Your task to perform on an android device: turn off translation in the chrome app Image 0: 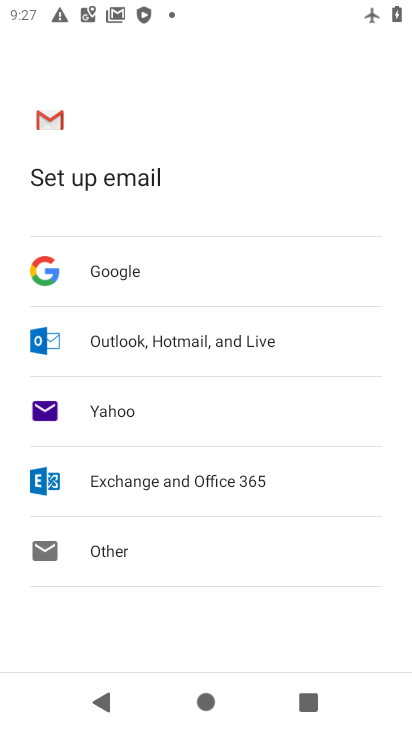
Step 0: press home button
Your task to perform on an android device: turn off translation in the chrome app Image 1: 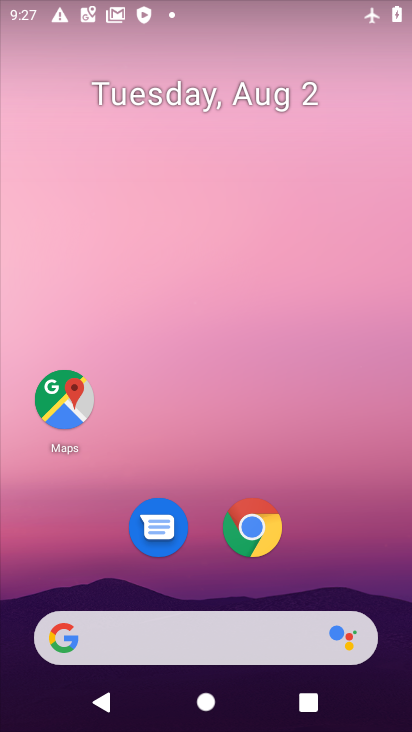
Step 1: drag from (194, 566) to (177, 255)
Your task to perform on an android device: turn off translation in the chrome app Image 2: 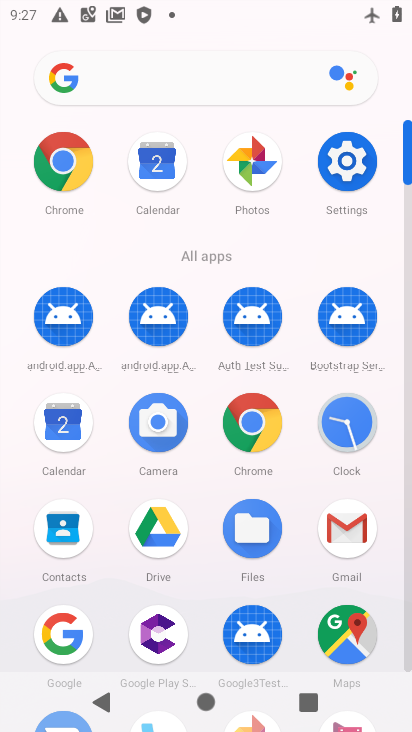
Step 2: click (256, 420)
Your task to perform on an android device: turn off translation in the chrome app Image 3: 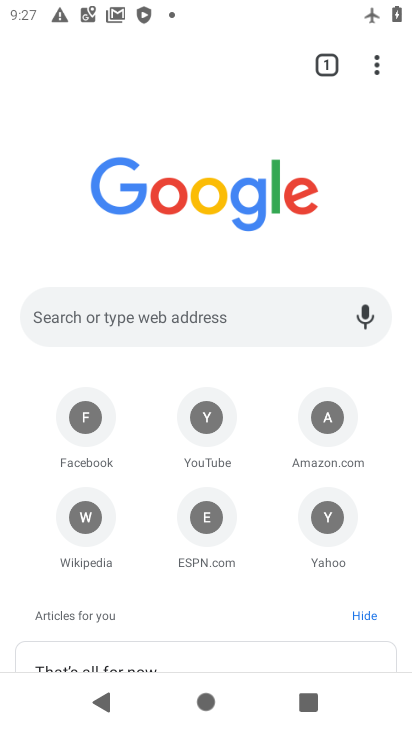
Step 3: click (382, 75)
Your task to perform on an android device: turn off translation in the chrome app Image 4: 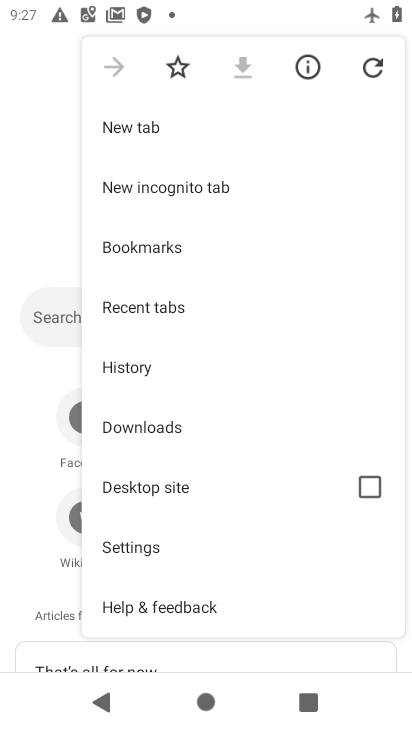
Step 4: click (140, 547)
Your task to perform on an android device: turn off translation in the chrome app Image 5: 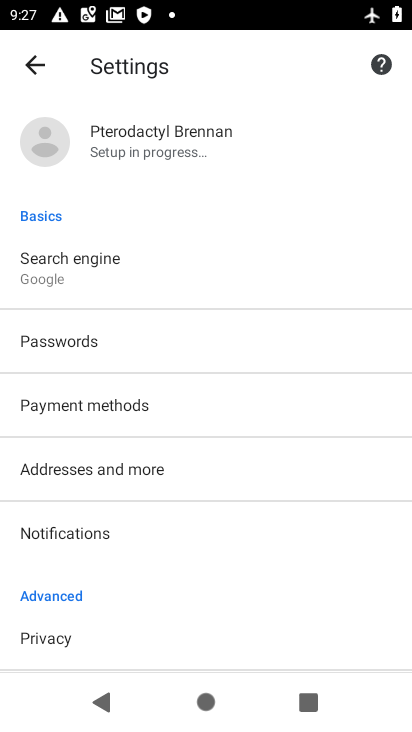
Step 5: drag from (120, 633) to (141, 277)
Your task to perform on an android device: turn off translation in the chrome app Image 6: 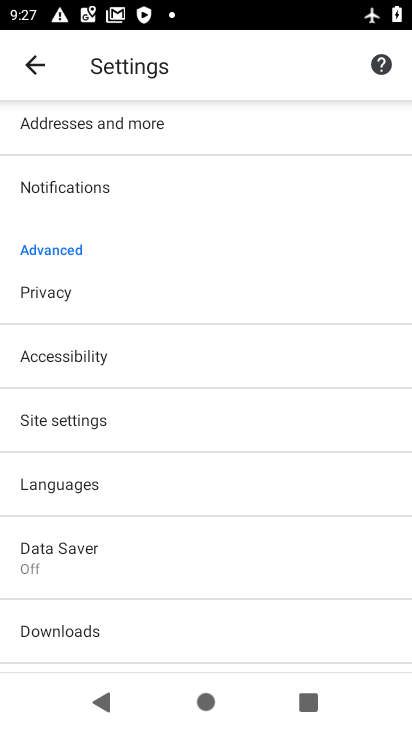
Step 6: click (69, 487)
Your task to perform on an android device: turn off translation in the chrome app Image 7: 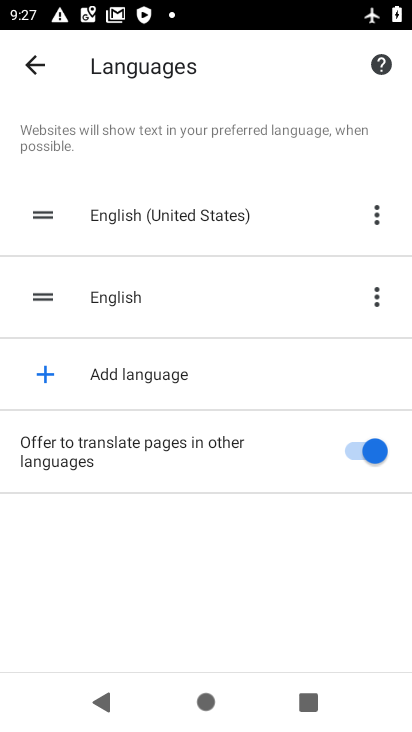
Step 7: click (363, 449)
Your task to perform on an android device: turn off translation in the chrome app Image 8: 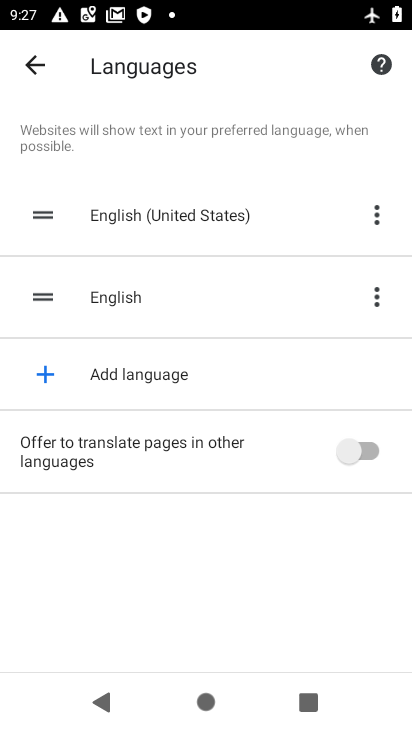
Step 8: task complete